Your task to perform on an android device: Open Google Chrome and click the shortcut for Amazon.com Image 0: 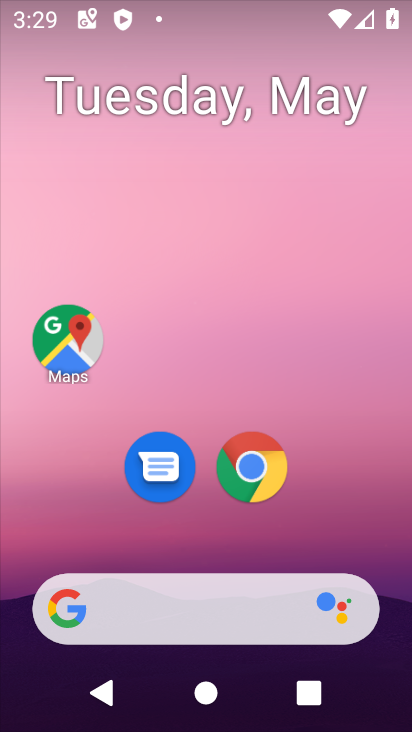
Step 0: click (252, 477)
Your task to perform on an android device: Open Google Chrome and click the shortcut for Amazon.com Image 1: 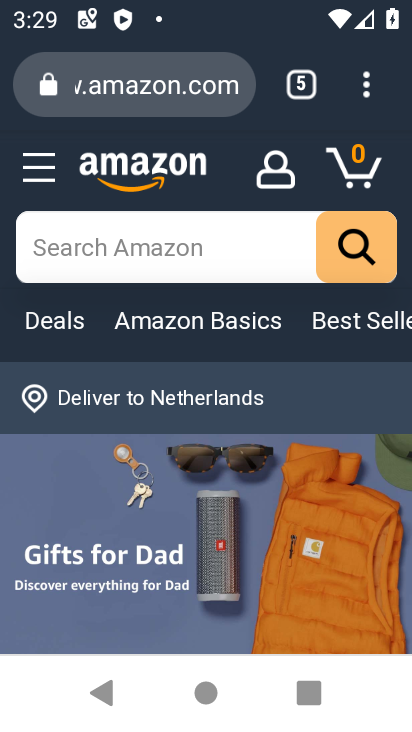
Step 1: task complete